Your task to perform on an android device: open app "Adobe Acrobat Reader: Edit PDF" (install if not already installed) and go to login screen Image 0: 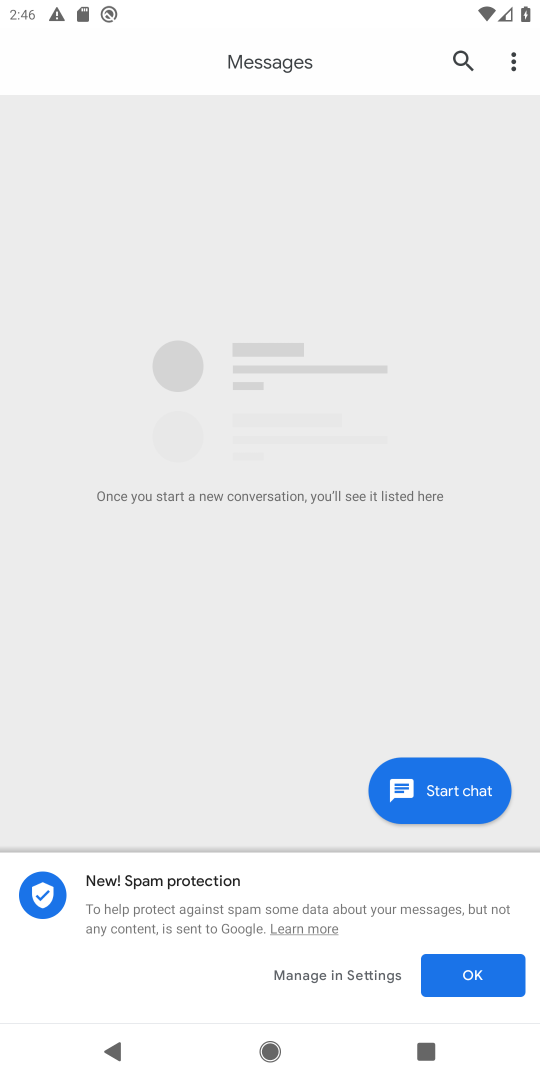
Step 0: press home button
Your task to perform on an android device: open app "Adobe Acrobat Reader: Edit PDF" (install if not already installed) and go to login screen Image 1: 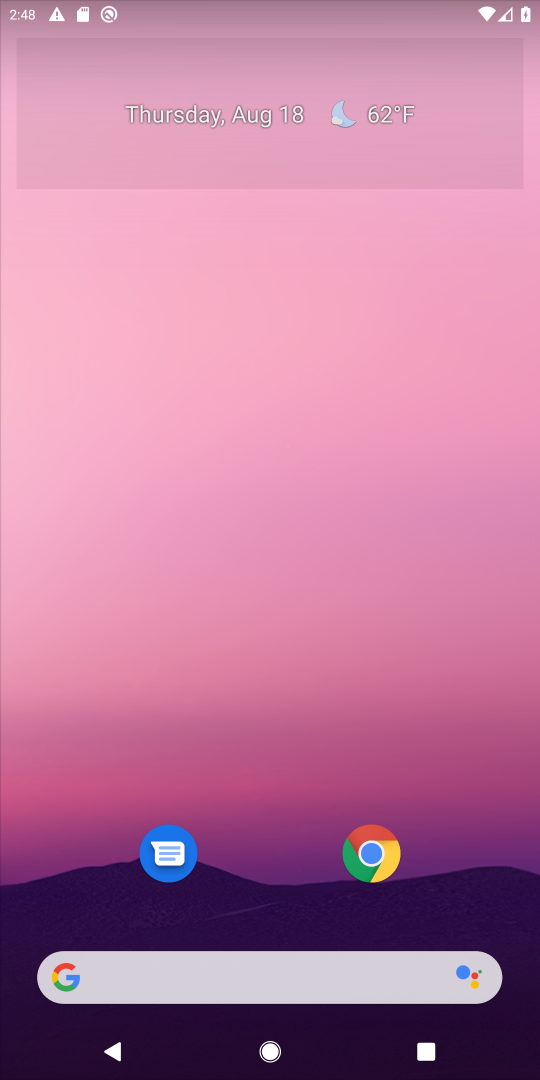
Step 1: drag from (475, 926) to (298, 23)
Your task to perform on an android device: open app "Adobe Acrobat Reader: Edit PDF" (install if not already installed) and go to login screen Image 2: 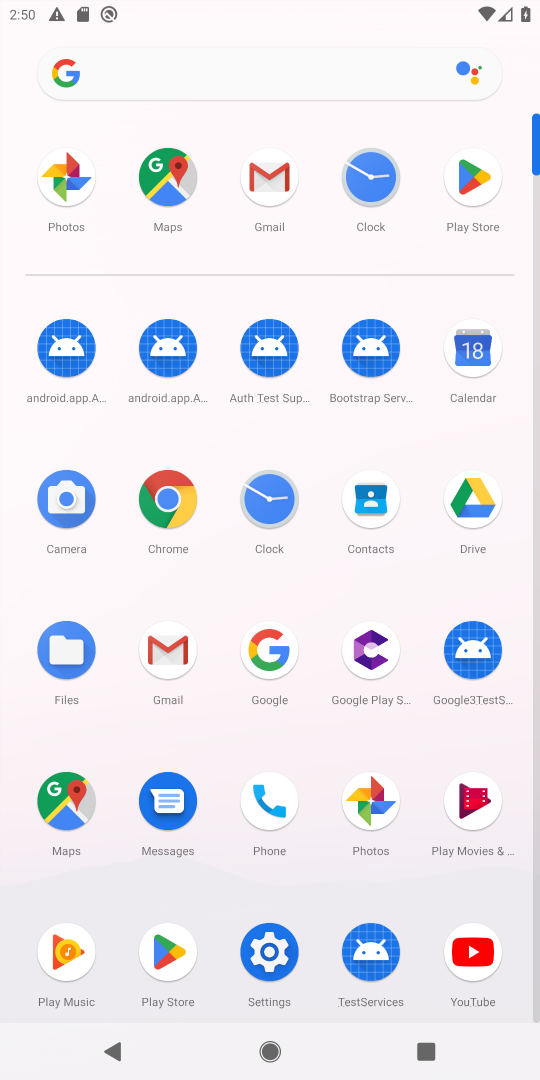
Step 2: click (465, 177)
Your task to perform on an android device: open app "Adobe Acrobat Reader: Edit PDF" (install if not already installed) and go to login screen Image 3: 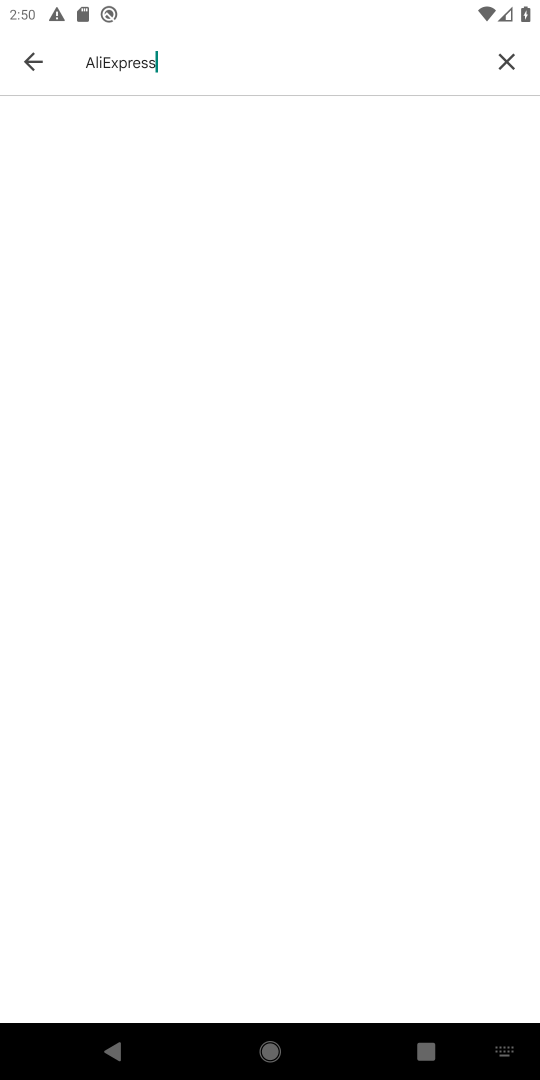
Step 3: click (508, 52)
Your task to perform on an android device: open app "Adobe Acrobat Reader: Edit PDF" (install if not already installed) and go to login screen Image 4: 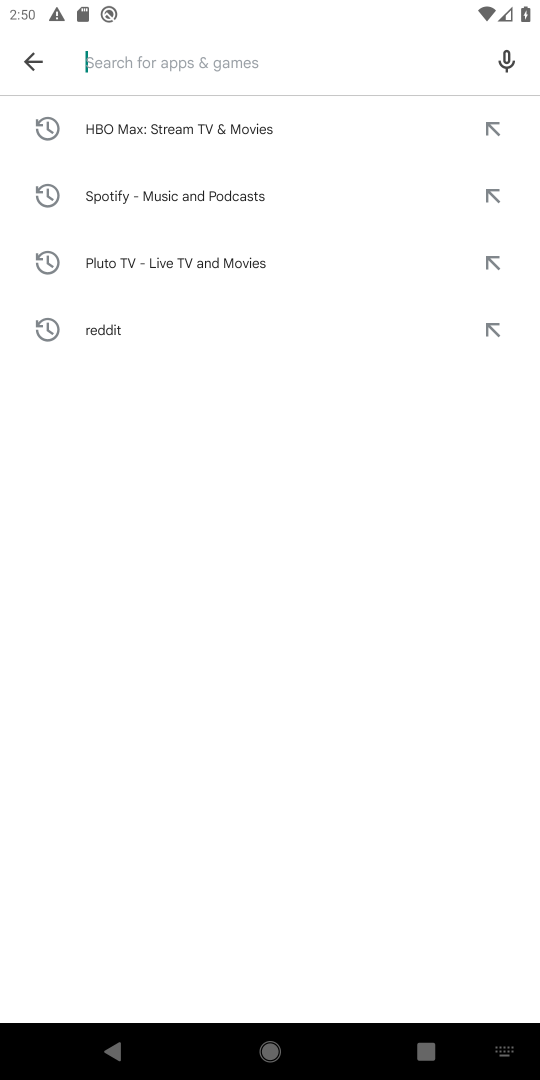
Step 4: type "Adobe Acrobat Reader: Edit PDF"
Your task to perform on an android device: open app "Adobe Acrobat Reader: Edit PDF" (install if not already installed) and go to login screen Image 5: 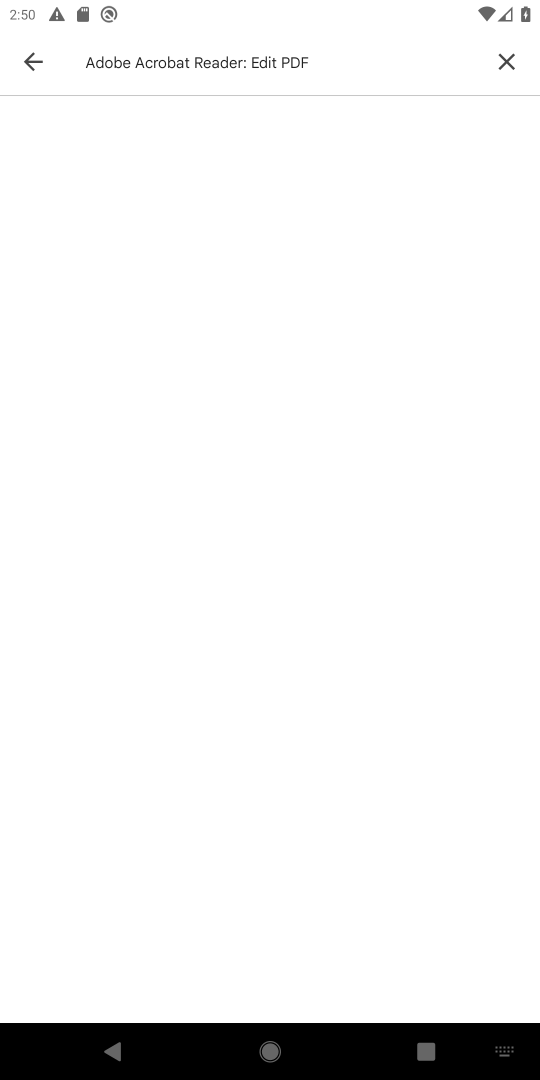
Step 5: task complete